Your task to perform on an android device: choose inbox layout in the gmail app Image 0: 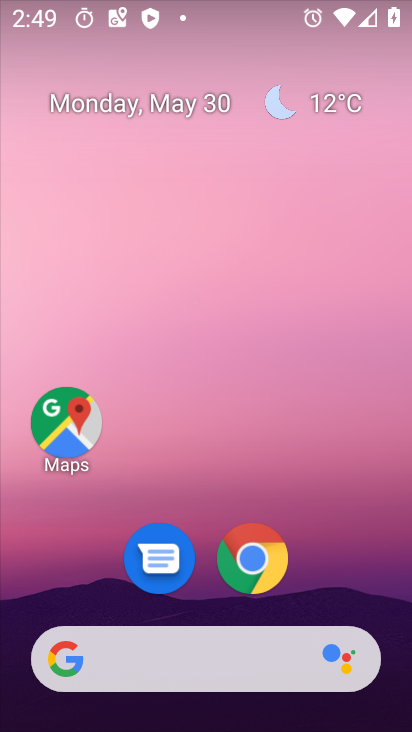
Step 0: drag from (205, 601) to (275, 150)
Your task to perform on an android device: choose inbox layout in the gmail app Image 1: 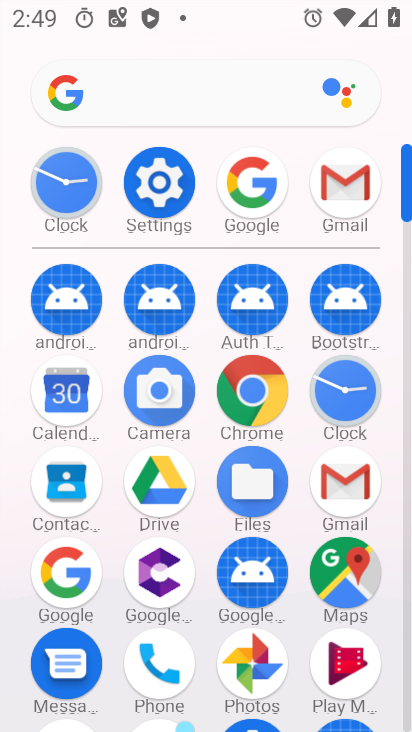
Step 1: click (321, 180)
Your task to perform on an android device: choose inbox layout in the gmail app Image 2: 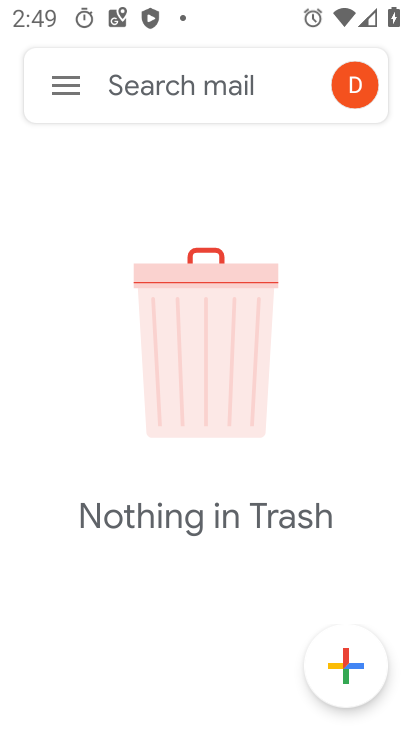
Step 2: click (60, 88)
Your task to perform on an android device: choose inbox layout in the gmail app Image 3: 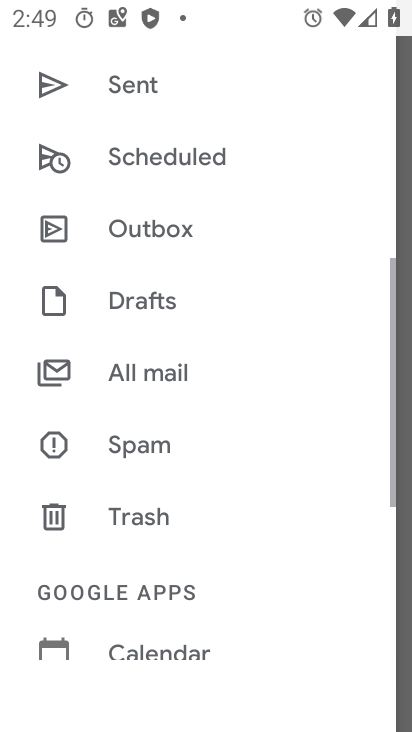
Step 3: drag from (163, 632) to (263, 38)
Your task to perform on an android device: choose inbox layout in the gmail app Image 4: 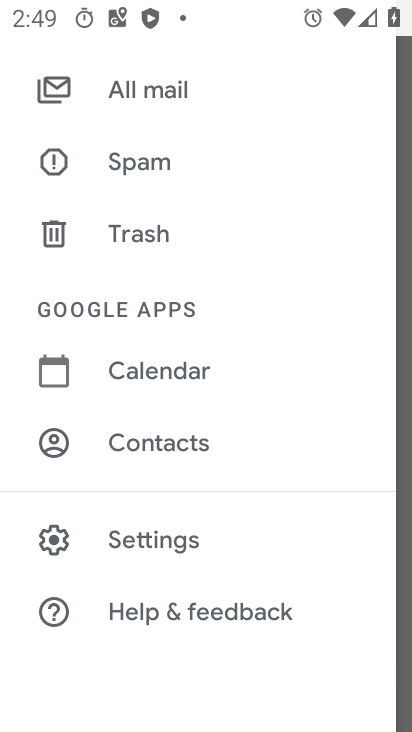
Step 4: click (190, 542)
Your task to perform on an android device: choose inbox layout in the gmail app Image 5: 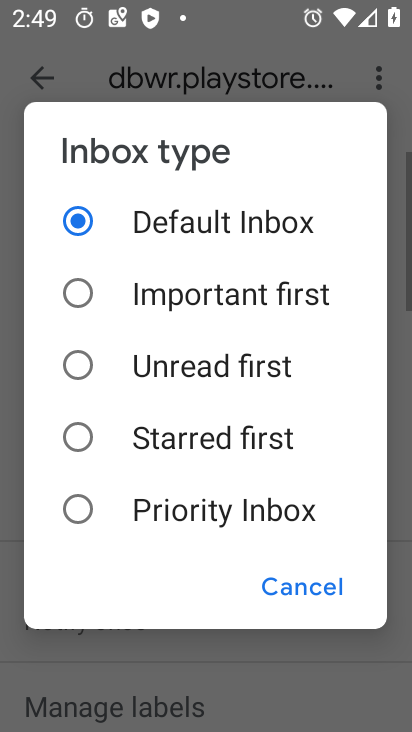
Step 5: click (299, 594)
Your task to perform on an android device: choose inbox layout in the gmail app Image 6: 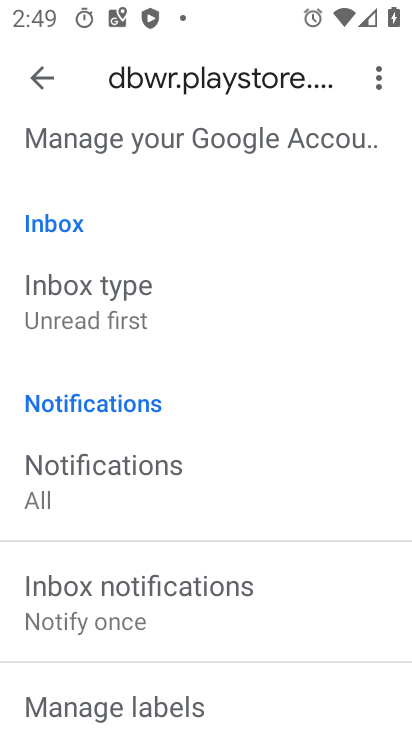
Step 6: click (109, 306)
Your task to perform on an android device: choose inbox layout in the gmail app Image 7: 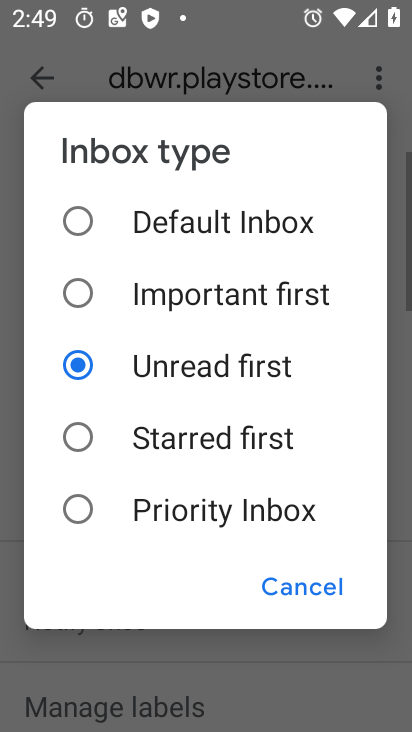
Step 7: click (83, 223)
Your task to perform on an android device: choose inbox layout in the gmail app Image 8: 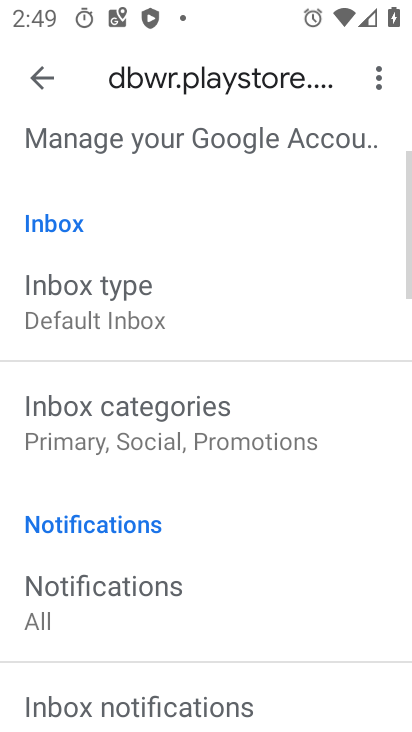
Step 8: task complete